Your task to perform on an android device: Open calendar and show me the third week of next month Image 0: 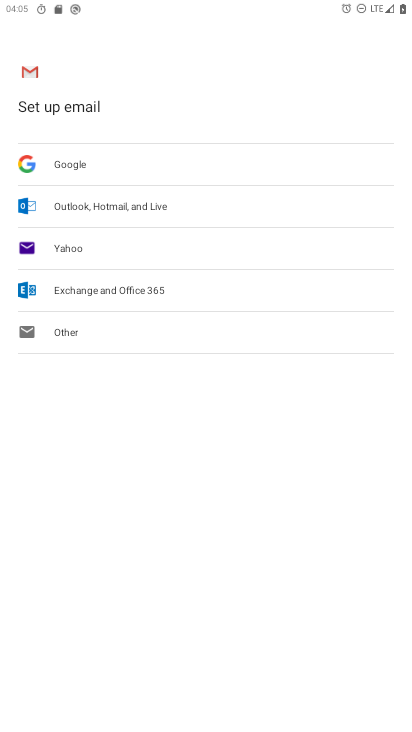
Step 0: press home button
Your task to perform on an android device: Open calendar and show me the third week of next month Image 1: 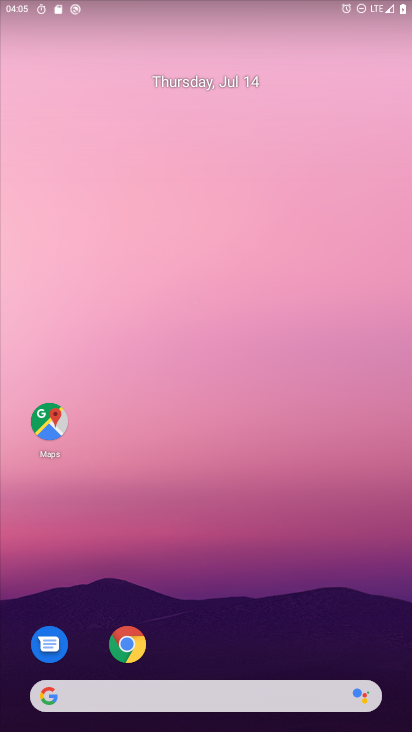
Step 1: drag from (251, 552) to (251, 38)
Your task to perform on an android device: Open calendar and show me the third week of next month Image 2: 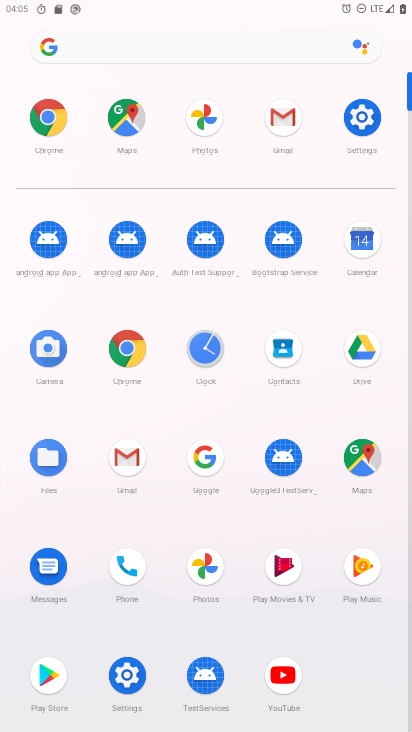
Step 2: click (365, 236)
Your task to perform on an android device: Open calendar and show me the third week of next month Image 3: 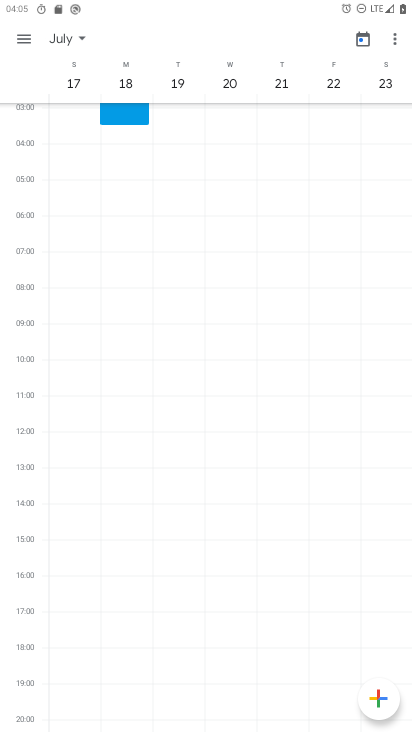
Step 3: click (70, 33)
Your task to perform on an android device: Open calendar and show me the third week of next month Image 4: 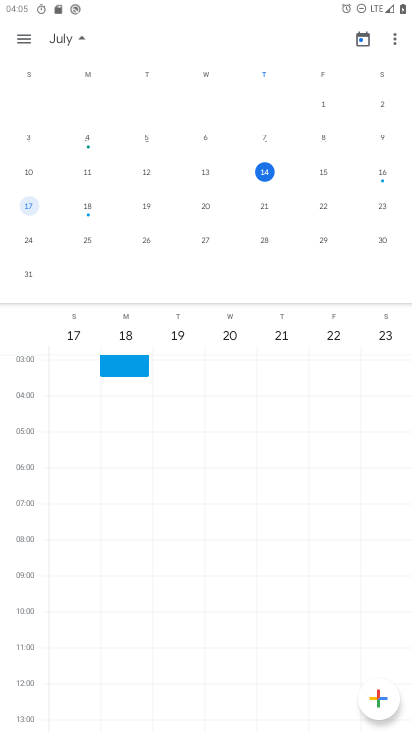
Step 4: drag from (343, 220) to (40, 203)
Your task to perform on an android device: Open calendar and show me the third week of next month Image 5: 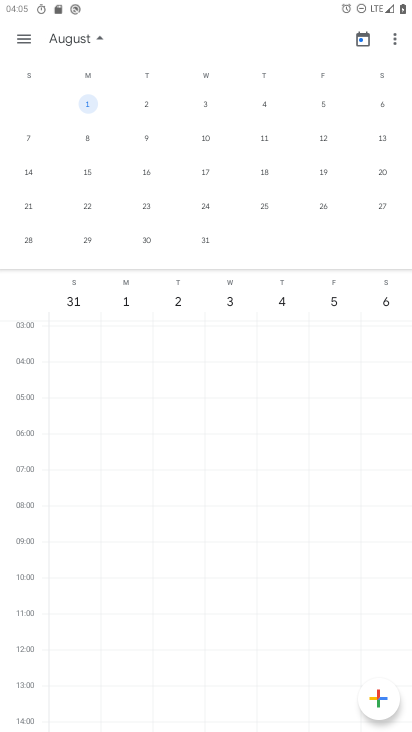
Step 5: click (202, 174)
Your task to perform on an android device: Open calendar and show me the third week of next month Image 6: 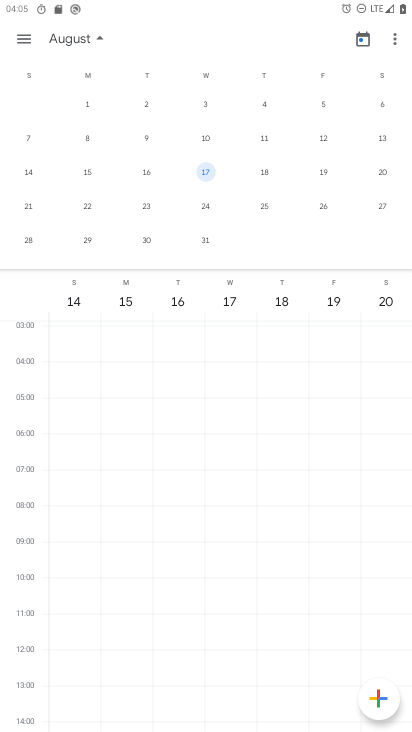
Step 6: task complete